Your task to perform on an android device: Search for logitech g903 on amazon.com, select the first entry, and add it to the cart. Image 0: 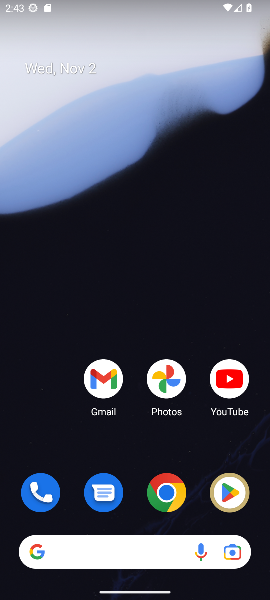
Step 0: click (167, 492)
Your task to perform on an android device: Search for logitech g903 on amazon.com, select the first entry, and add it to the cart. Image 1: 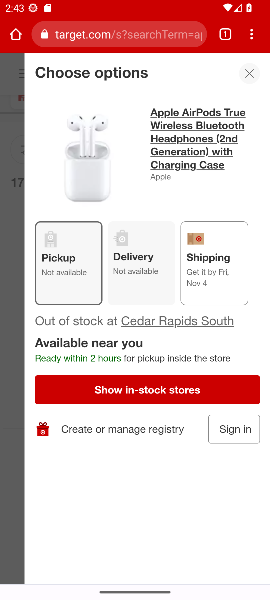
Step 1: click (140, 20)
Your task to perform on an android device: Search for logitech g903 on amazon.com, select the first entry, and add it to the cart. Image 2: 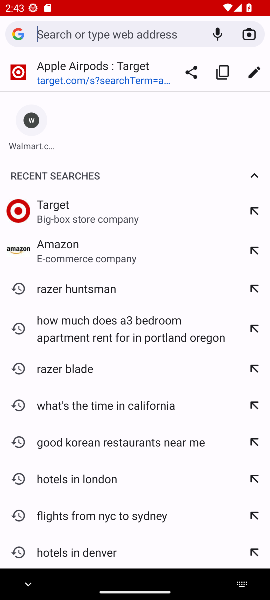
Step 2: type "amazon.com"
Your task to perform on an android device: Search for logitech g903 on amazon.com, select the first entry, and add it to the cart. Image 3: 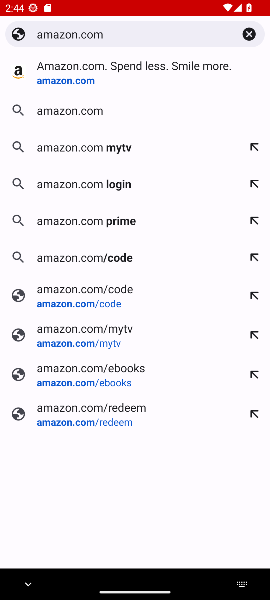
Step 3: click (47, 67)
Your task to perform on an android device: Search for logitech g903 on amazon.com, select the first entry, and add it to the cart. Image 4: 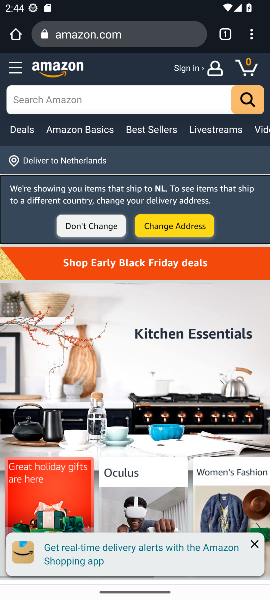
Step 4: click (59, 98)
Your task to perform on an android device: Search for logitech g903 on amazon.com, select the first entry, and add it to the cart. Image 5: 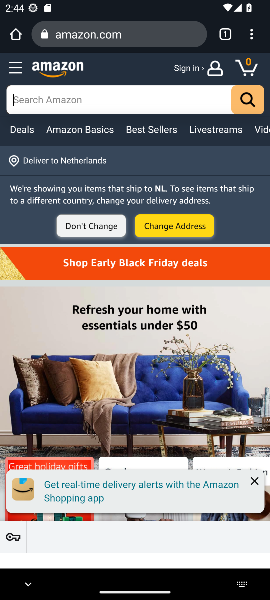
Step 5: type "logitech g903"
Your task to perform on an android device: Search for logitech g903 on amazon.com, select the first entry, and add it to the cart. Image 6: 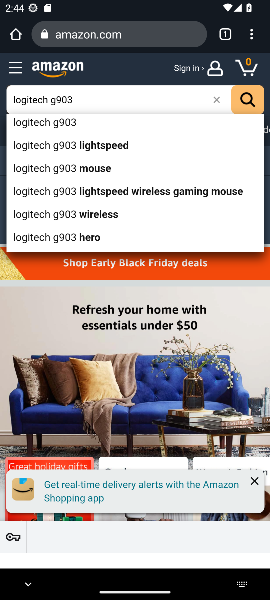
Step 6: click (64, 122)
Your task to perform on an android device: Search for logitech g903 on amazon.com, select the first entry, and add it to the cart. Image 7: 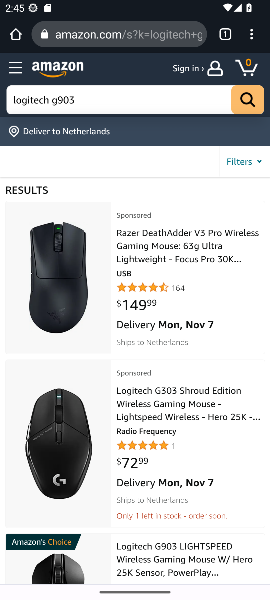
Step 7: drag from (197, 444) to (187, 330)
Your task to perform on an android device: Search for logitech g903 on amazon.com, select the first entry, and add it to the cart. Image 8: 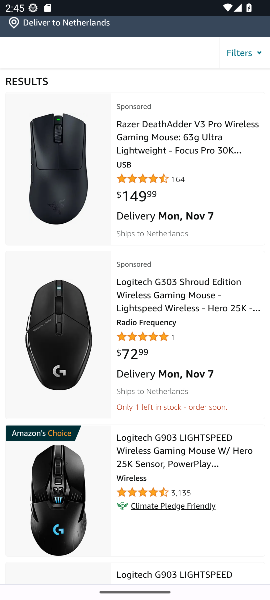
Step 8: click (146, 442)
Your task to perform on an android device: Search for logitech g903 on amazon.com, select the first entry, and add it to the cart. Image 9: 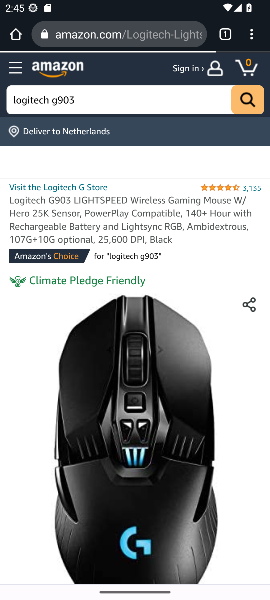
Step 9: drag from (157, 469) to (145, 233)
Your task to perform on an android device: Search for logitech g903 on amazon.com, select the first entry, and add it to the cart. Image 10: 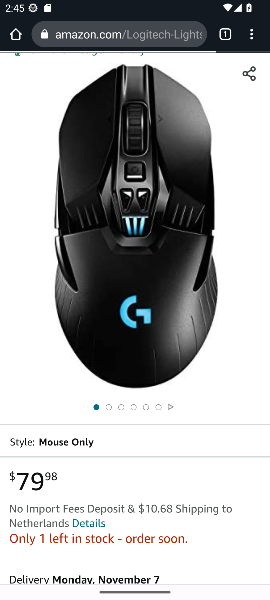
Step 10: drag from (158, 443) to (130, 153)
Your task to perform on an android device: Search for logitech g903 on amazon.com, select the first entry, and add it to the cart. Image 11: 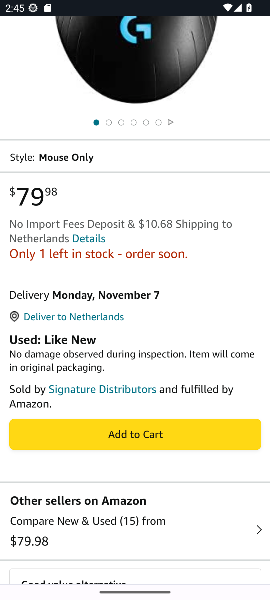
Step 11: click (130, 436)
Your task to perform on an android device: Search for logitech g903 on amazon.com, select the first entry, and add it to the cart. Image 12: 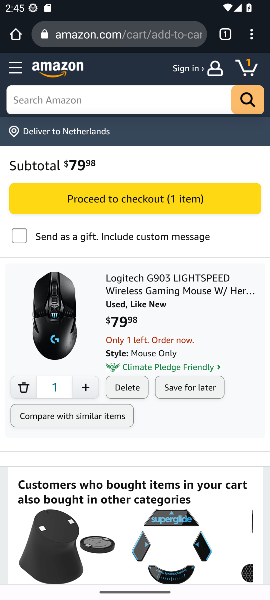
Step 12: task complete